Your task to perform on an android device: Open internet settings Image 0: 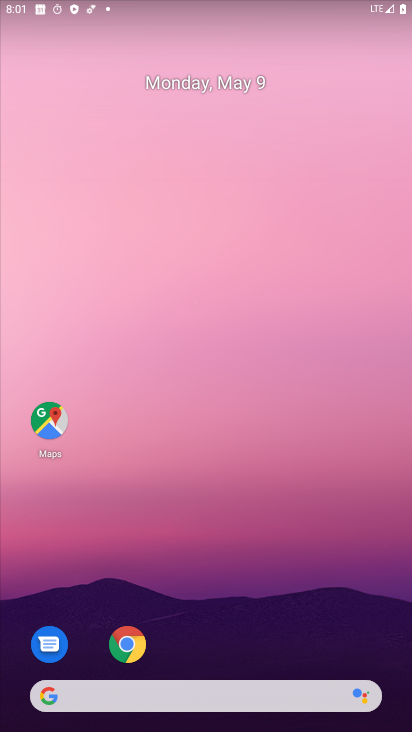
Step 0: drag from (215, 651) to (268, 246)
Your task to perform on an android device: Open internet settings Image 1: 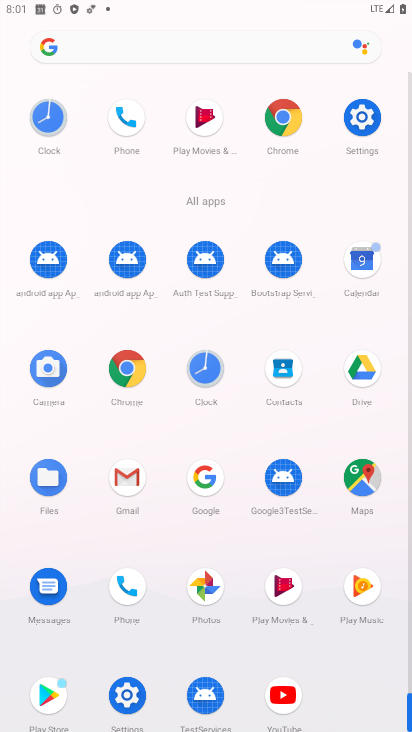
Step 1: click (362, 106)
Your task to perform on an android device: Open internet settings Image 2: 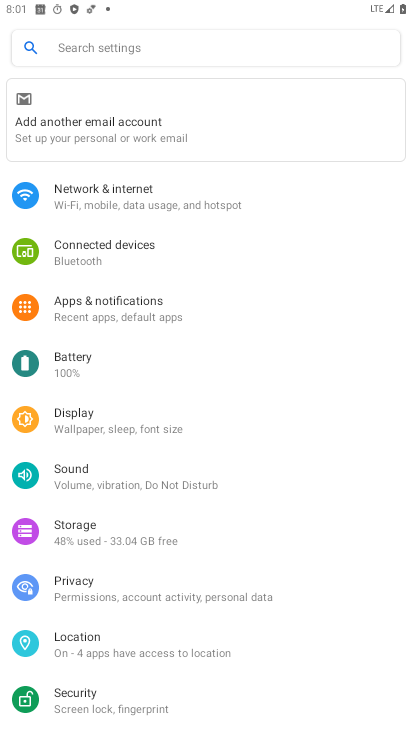
Step 2: click (122, 200)
Your task to perform on an android device: Open internet settings Image 3: 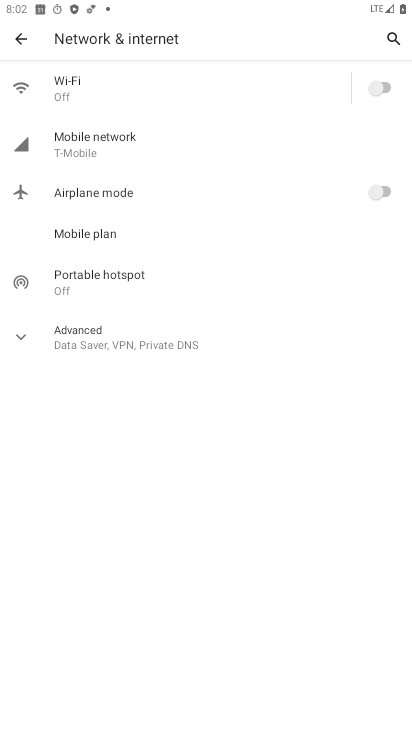
Step 3: click (135, 143)
Your task to perform on an android device: Open internet settings Image 4: 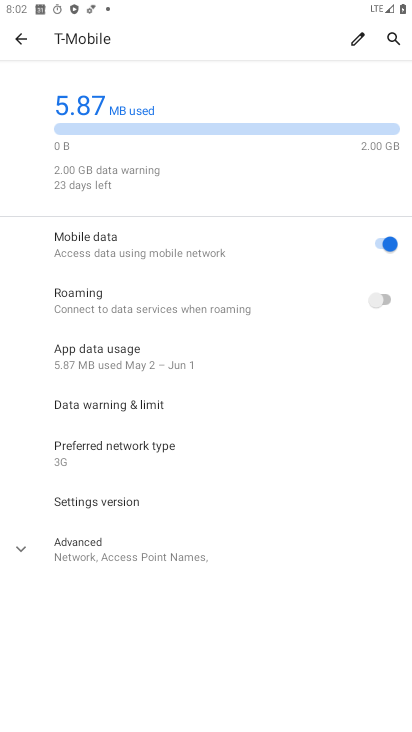
Step 4: task complete